Your task to perform on an android device: What's the weather going to be this weekend? Image 0: 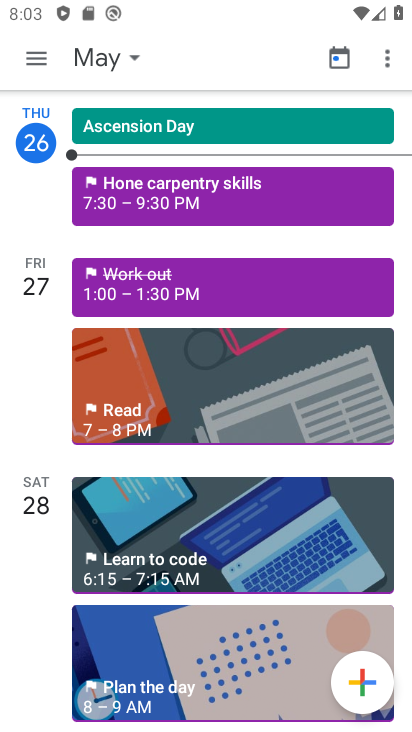
Step 0: press home button
Your task to perform on an android device: What's the weather going to be this weekend? Image 1: 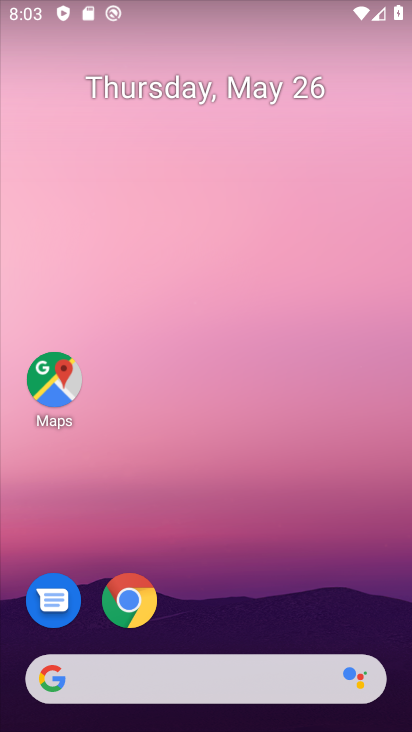
Step 1: click (200, 667)
Your task to perform on an android device: What's the weather going to be this weekend? Image 2: 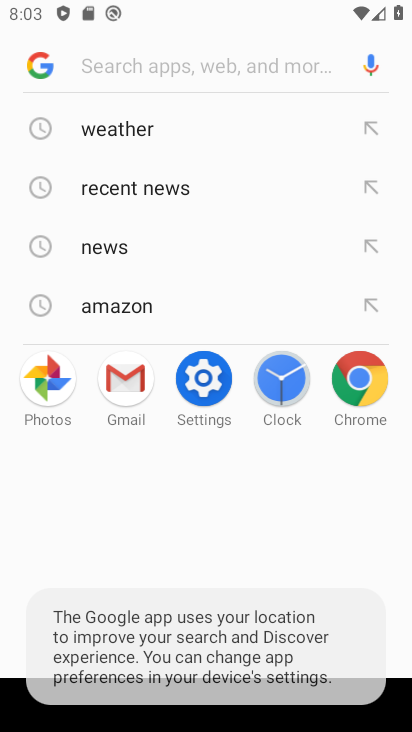
Step 2: click (101, 131)
Your task to perform on an android device: What's the weather going to be this weekend? Image 3: 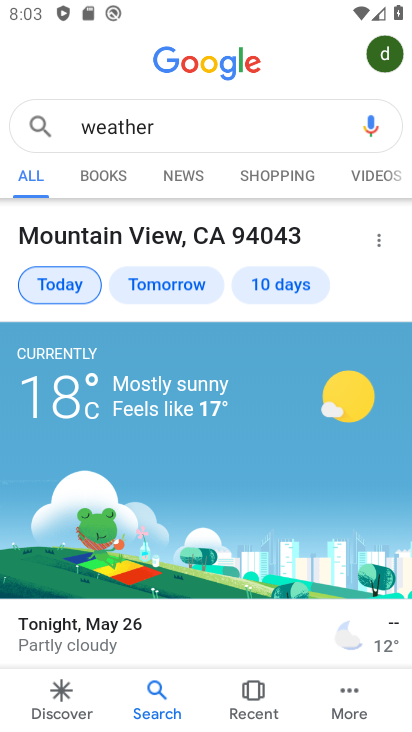
Step 3: task complete